Your task to perform on an android device: check storage Image 0: 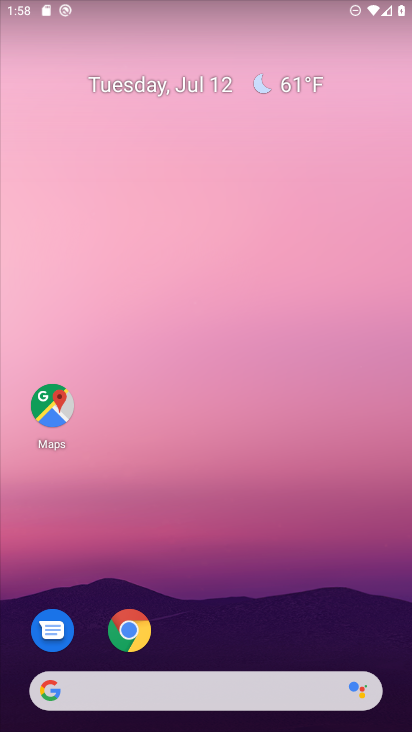
Step 0: drag from (223, 631) to (230, 139)
Your task to perform on an android device: check storage Image 1: 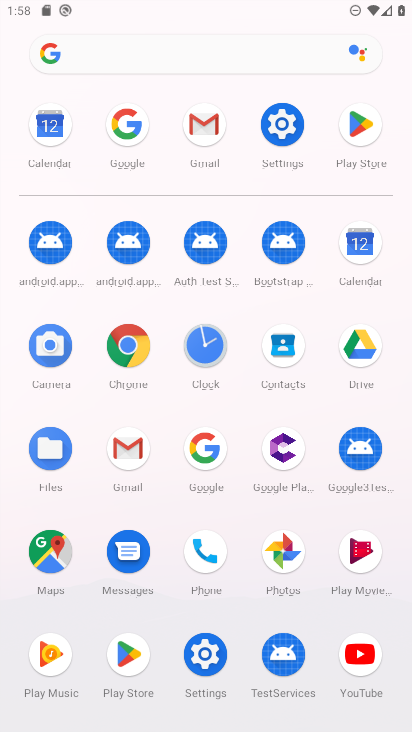
Step 1: click (272, 118)
Your task to perform on an android device: check storage Image 2: 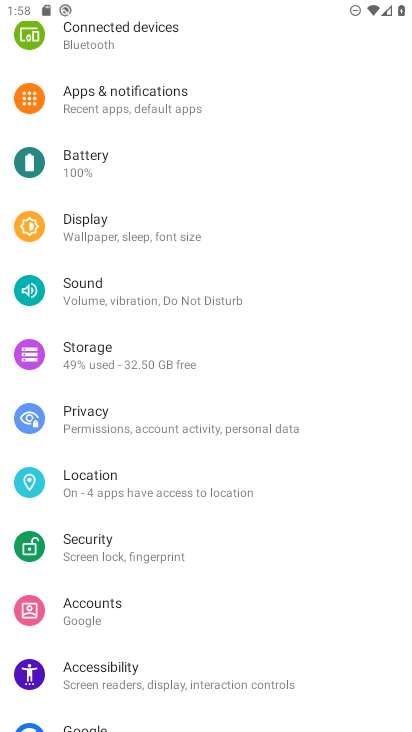
Step 2: drag from (186, 221) to (196, 95)
Your task to perform on an android device: check storage Image 3: 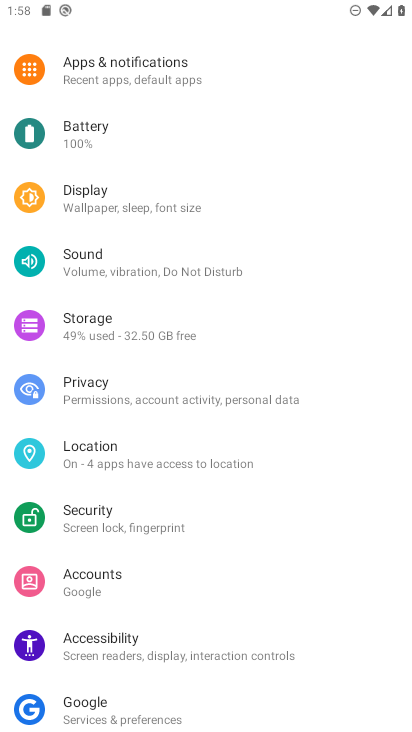
Step 3: click (129, 337)
Your task to perform on an android device: check storage Image 4: 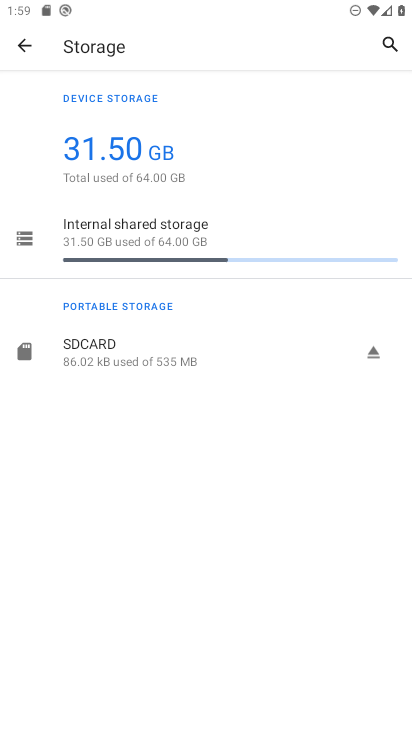
Step 4: task complete